Your task to perform on an android device: Go to eBay Image 0: 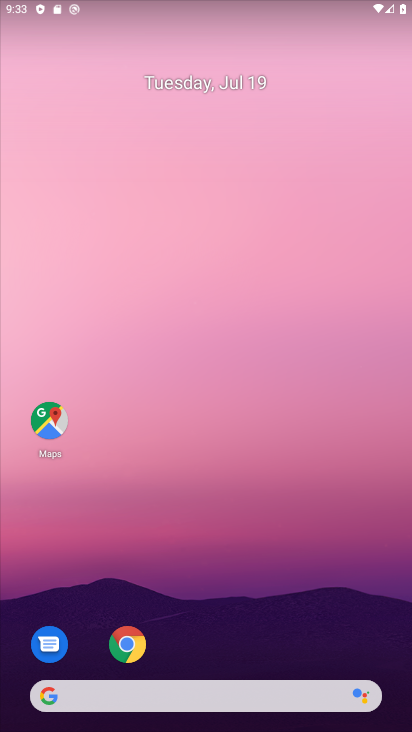
Step 0: click (126, 646)
Your task to perform on an android device: Go to eBay Image 1: 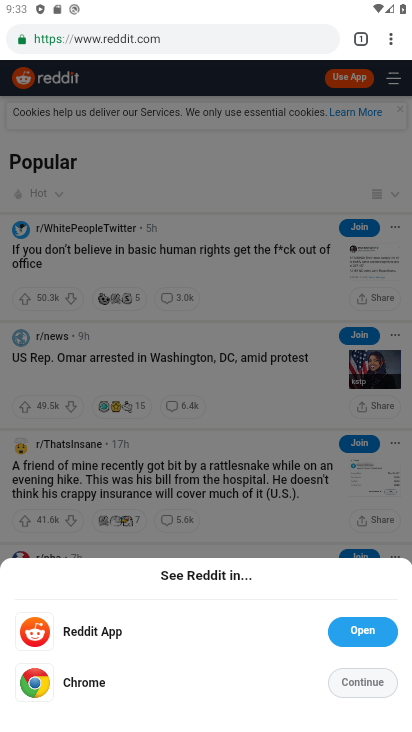
Step 1: click (212, 42)
Your task to perform on an android device: Go to eBay Image 2: 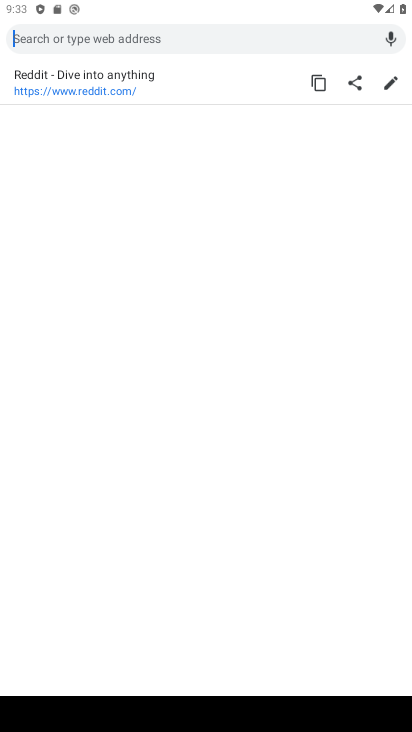
Step 2: type "eBay"
Your task to perform on an android device: Go to eBay Image 3: 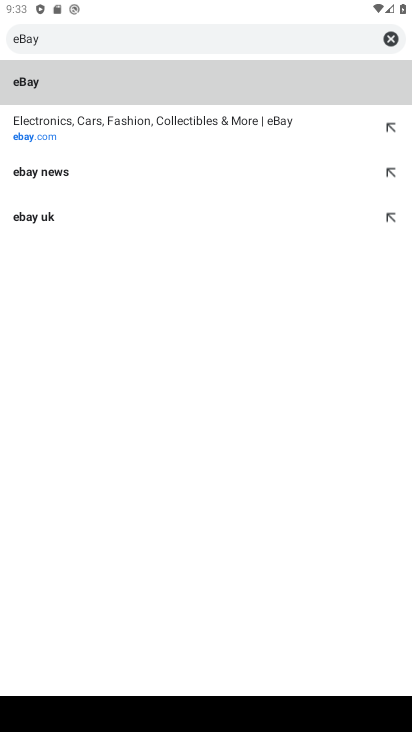
Step 3: click (106, 142)
Your task to perform on an android device: Go to eBay Image 4: 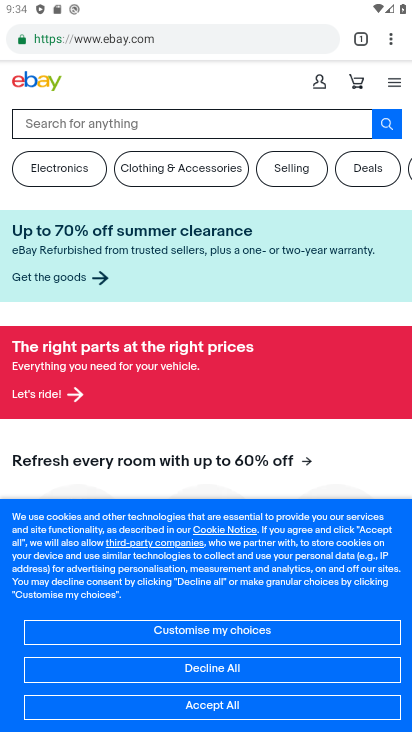
Step 4: task complete